Your task to perform on an android device: Is it going to rain tomorrow? Image 0: 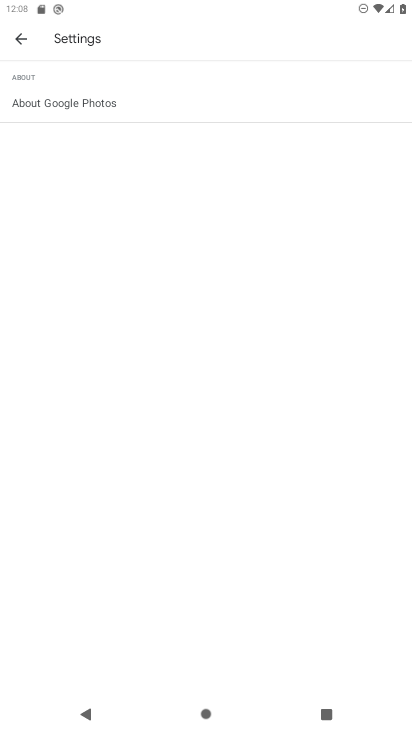
Step 0: press home button
Your task to perform on an android device: Is it going to rain tomorrow? Image 1: 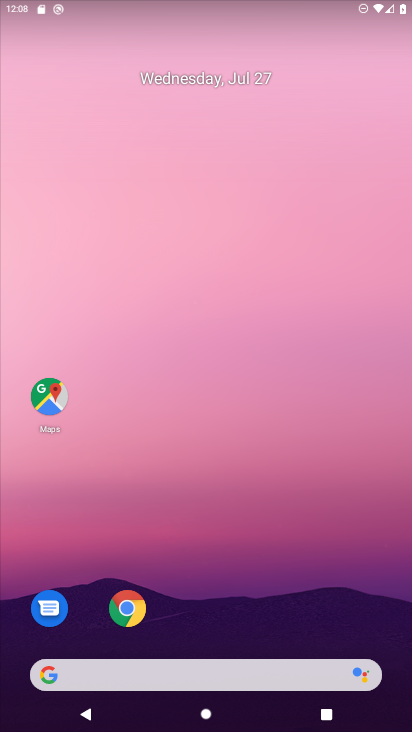
Step 1: click (302, 675)
Your task to perform on an android device: Is it going to rain tomorrow? Image 2: 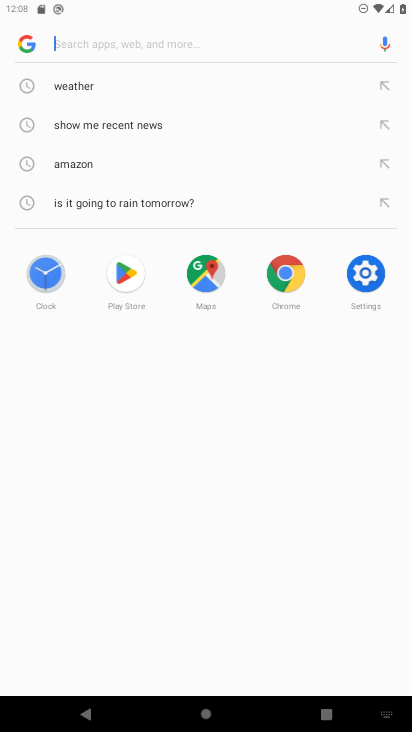
Step 2: click (176, 91)
Your task to perform on an android device: Is it going to rain tomorrow? Image 3: 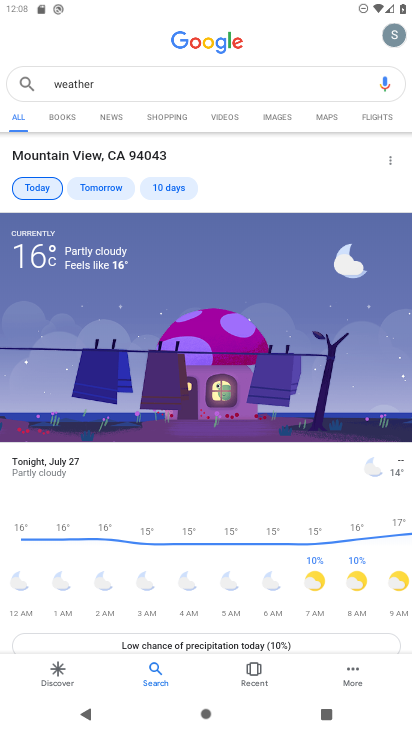
Step 3: click (106, 183)
Your task to perform on an android device: Is it going to rain tomorrow? Image 4: 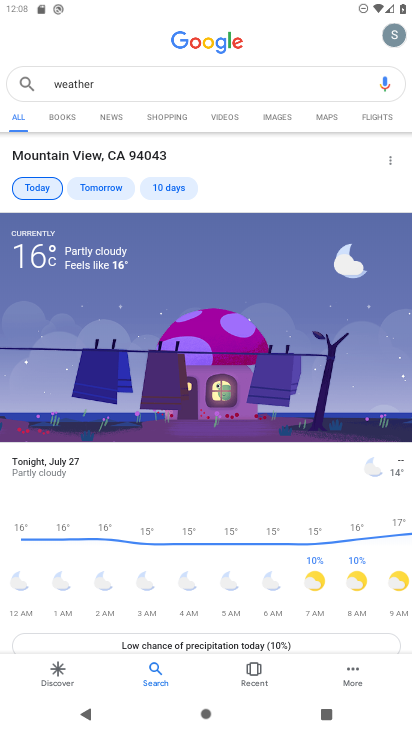
Step 4: click (106, 183)
Your task to perform on an android device: Is it going to rain tomorrow? Image 5: 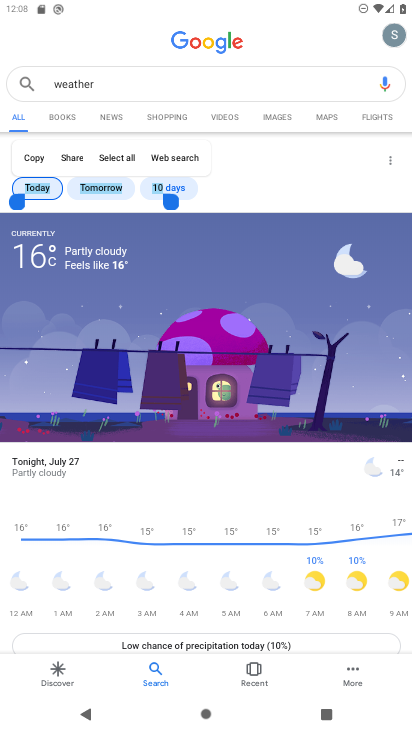
Step 5: click (106, 183)
Your task to perform on an android device: Is it going to rain tomorrow? Image 6: 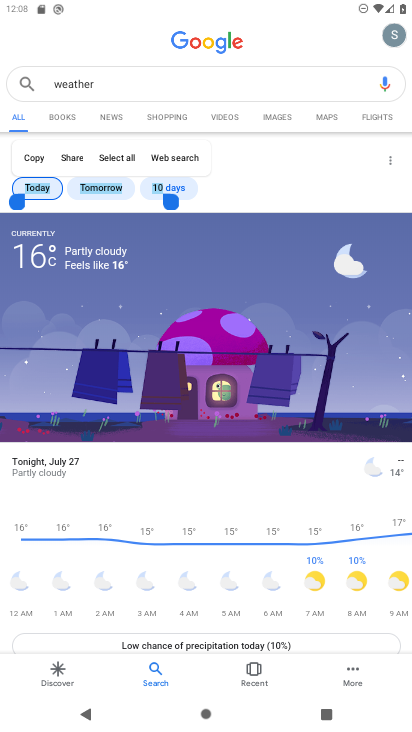
Step 6: click (106, 183)
Your task to perform on an android device: Is it going to rain tomorrow? Image 7: 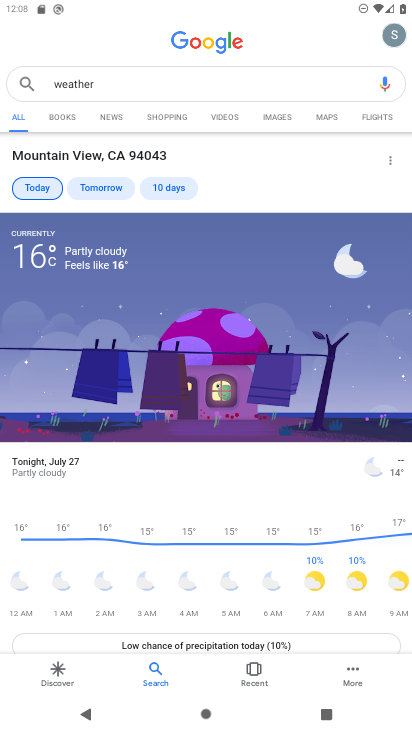
Step 7: task complete